Your task to perform on an android device: open the mobile data screen to see how much data has been used Image 0: 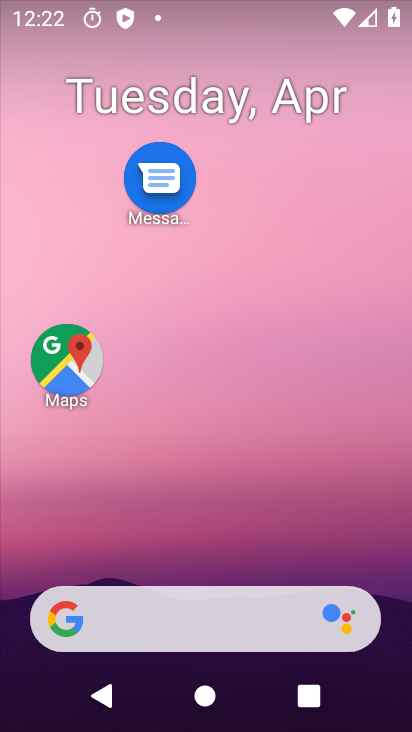
Step 0: drag from (203, 621) to (203, 104)
Your task to perform on an android device: open the mobile data screen to see how much data has been used Image 1: 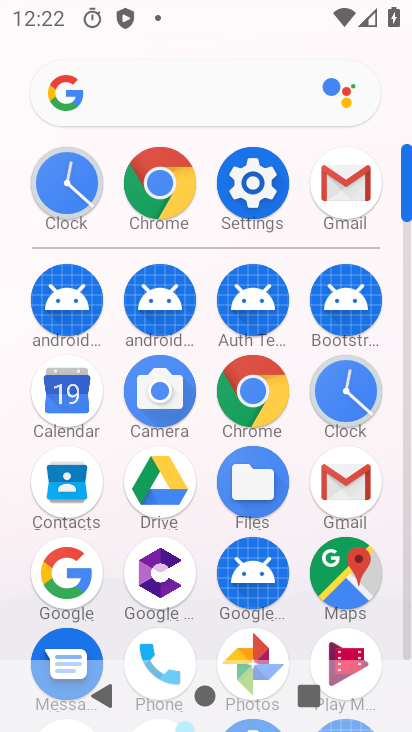
Step 1: click (246, 183)
Your task to perform on an android device: open the mobile data screen to see how much data has been used Image 2: 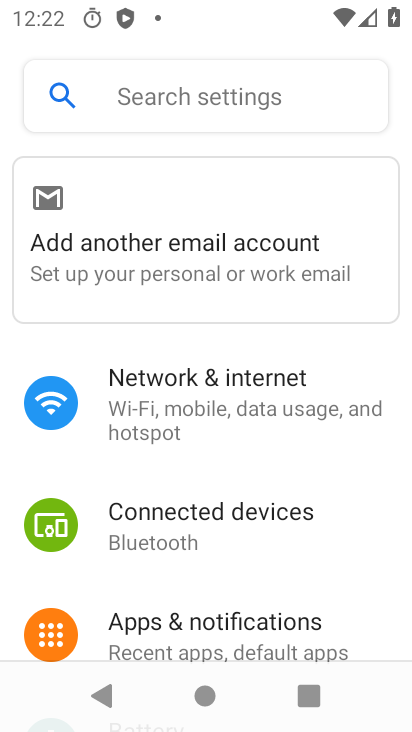
Step 2: click (184, 391)
Your task to perform on an android device: open the mobile data screen to see how much data has been used Image 3: 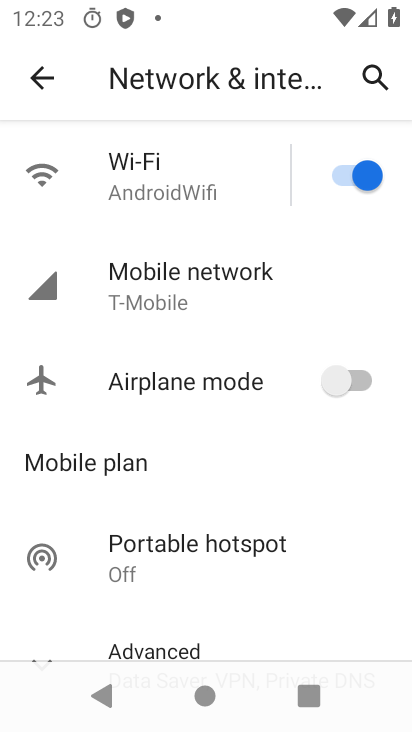
Step 3: click (159, 283)
Your task to perform on an android device: open the mobile data screen to see how much data has been used Image 4: 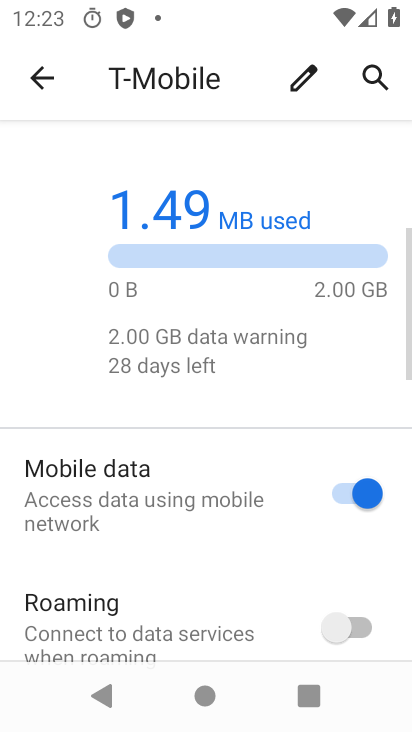
Step 4: drag from (173, 617) to (171, 194)
Your task to perform on an android device: open the mobile data screen to see how much data has been used Image 5: 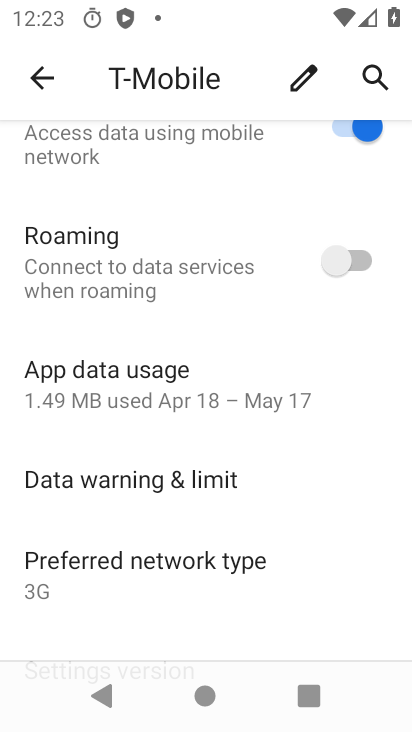
Step 5: click (112, 390)
Your task to perform on an android device: open the mobile data screen to see how much data has been used Image 6: 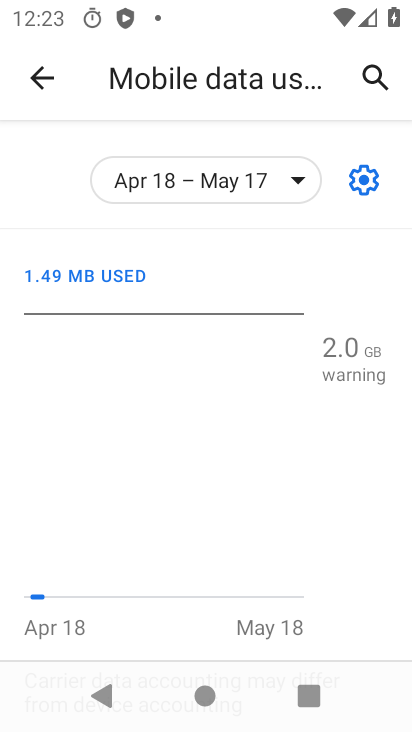
Step 6: task complete